Your task to perform on an android device: clear history in the chrome app Image 0: 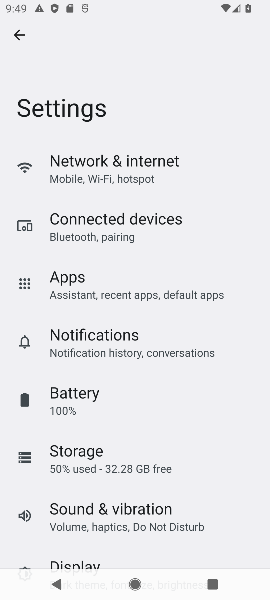
Step 0: press home button
Your task to perform on an android device: clear history in the chrome app Image 1: 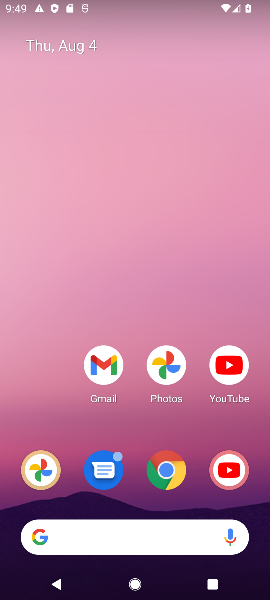
Step 1: click (163, 480)
Your task to perform on an android device: clear history in the chrome app Image 2: 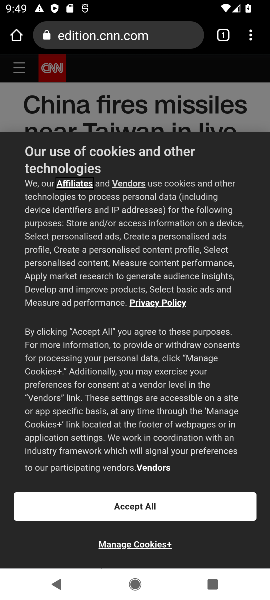
Step 2: click (250, 36)
Your task to perform on an android device: clear history in the chrome app Image 3: 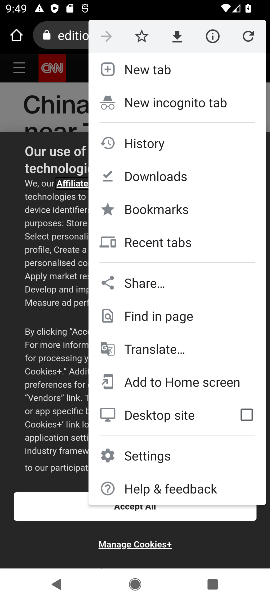
Step 3: click (168, 142)
Your task to perform on an android device: clear history in the chrome app Image 4: 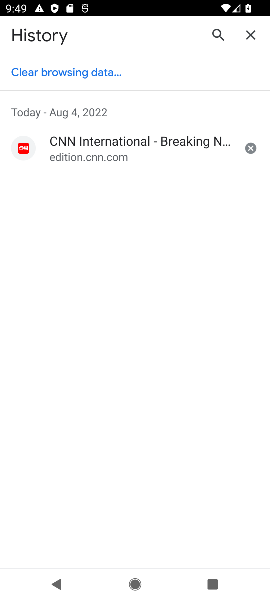
Step 4: click (87, 70)
Your task to perform on an android device: clear history in the chrome app Image 5: 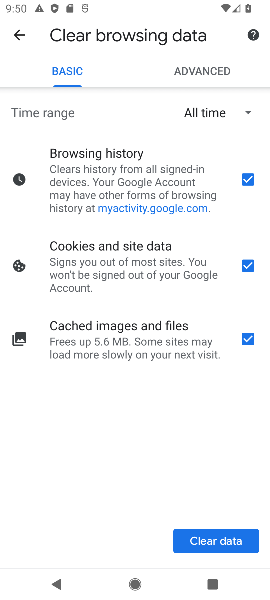
Step 5: click (226, 539)
Your task to perform on an android device: clear history in the chrome app Image 6: 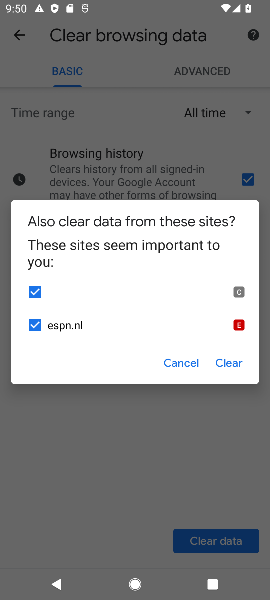
Step 6: click (222, 362)
Your task to perform on an android device: clear history in the chrome app Image 7: 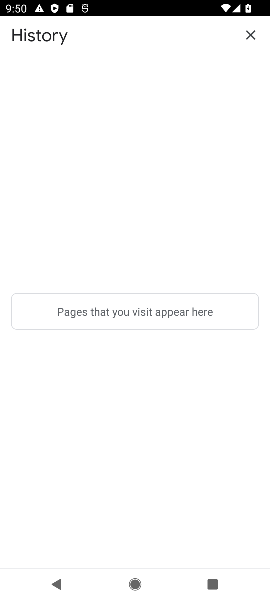
Step 7: task complete